Your task to perform on an android device: What's on my calendar tomorrow? Image 0: 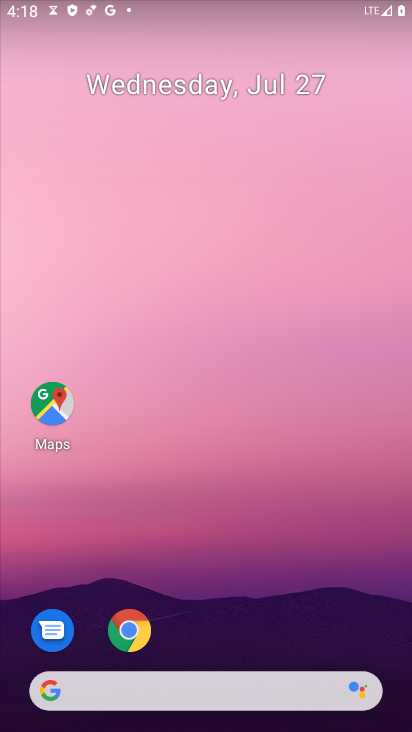
Step 0: drag from (232, 564) to (241, 196)
Your task to perform on an android device: What's on my calendar tomorrow? Image 1: 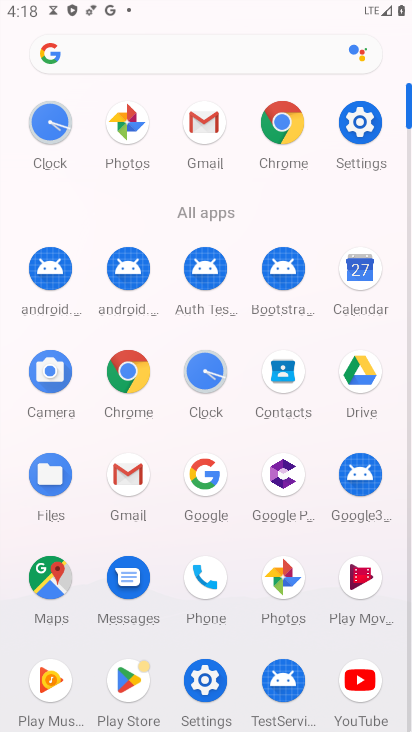
Step 1: click (371, 287)
Your task to perform on an android device: What's on my calendar tomorrow? Image 2: 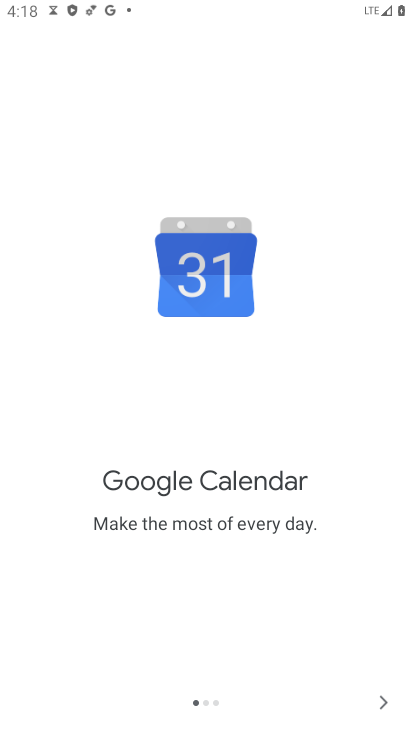
Step 2: click (383, 704)
Your task to perform on an android device: What's on my calendar tomorrow? Image 3: 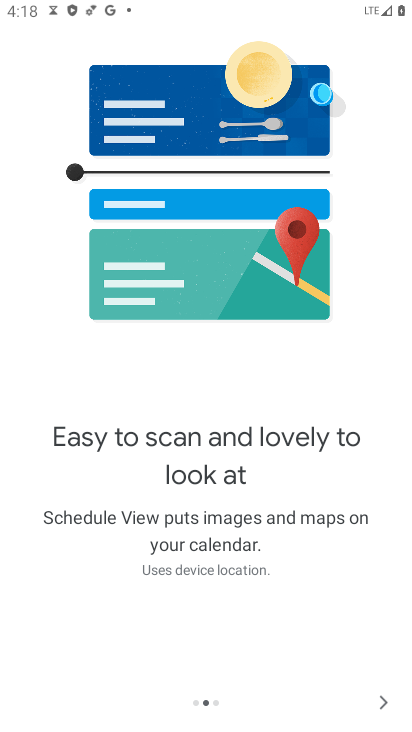
Step 3: click (379, 698)
Your task to perform on an android device: What's on my calendar tomorrow? Image 4: 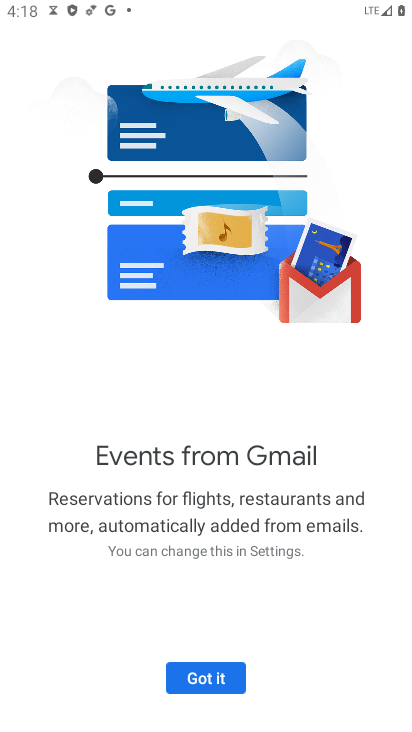
Step 4: click (179, 680)
Your task to perform on an android device: What's on my calendar tomorrow? Image 5: 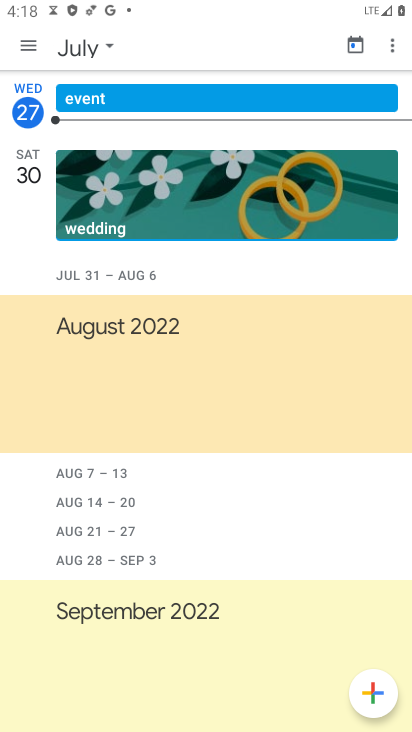
Step 5: click (28, 36)
Your task to perform on an android device: What's on my calendar tomorrow? Image 6: 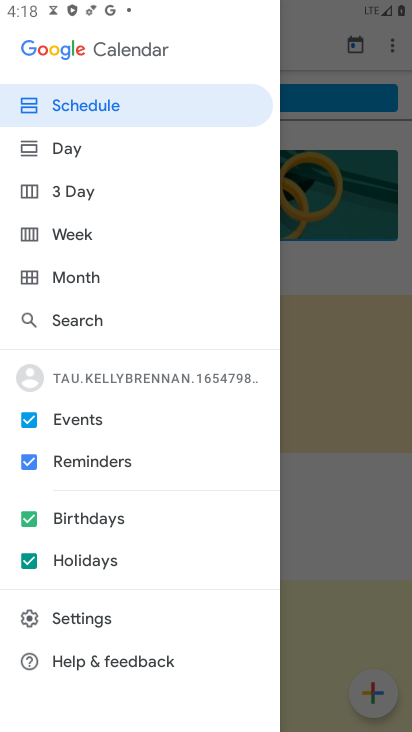
Step 6: click (103, 193)
Your task to perform on an android device: What's on my calendar tomorrow? Image 7: 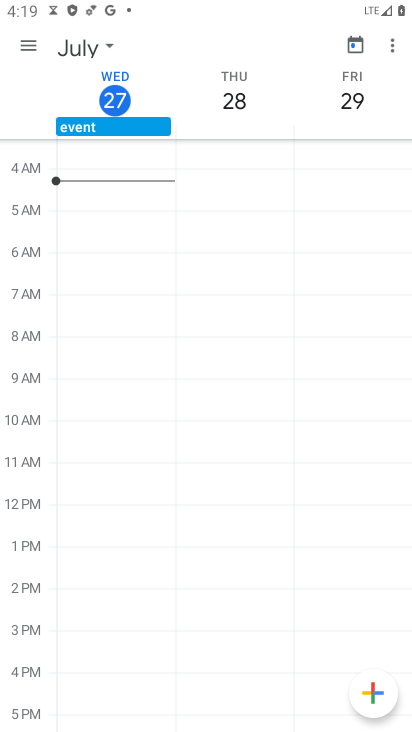
Step 7: task complete